Your task to perform on an android device: Open wifi settings Image 0: 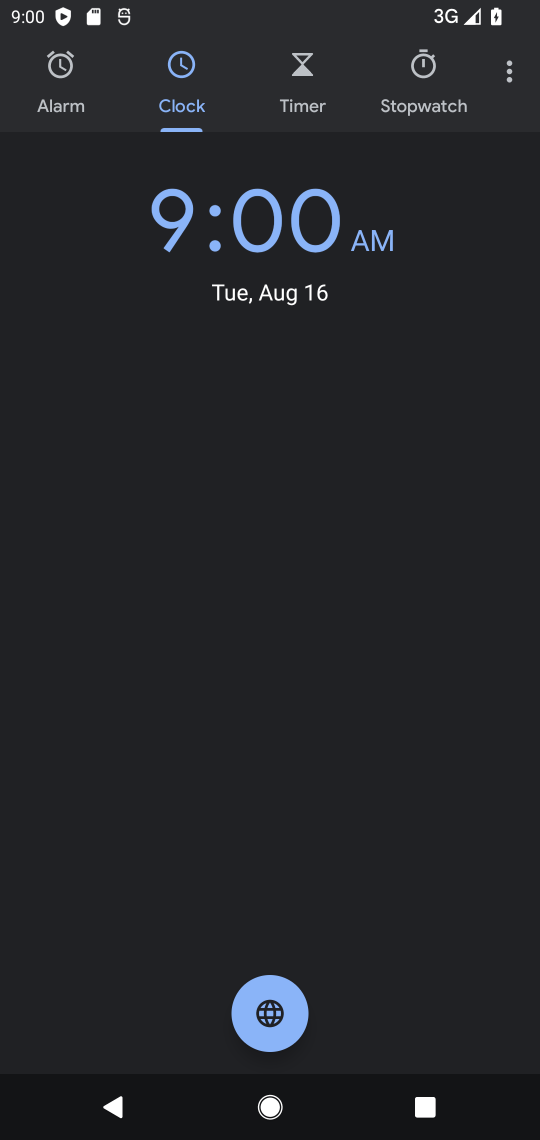
Step 0: press home button
Your task to perform on an android device: Open wifi settings Image 1: 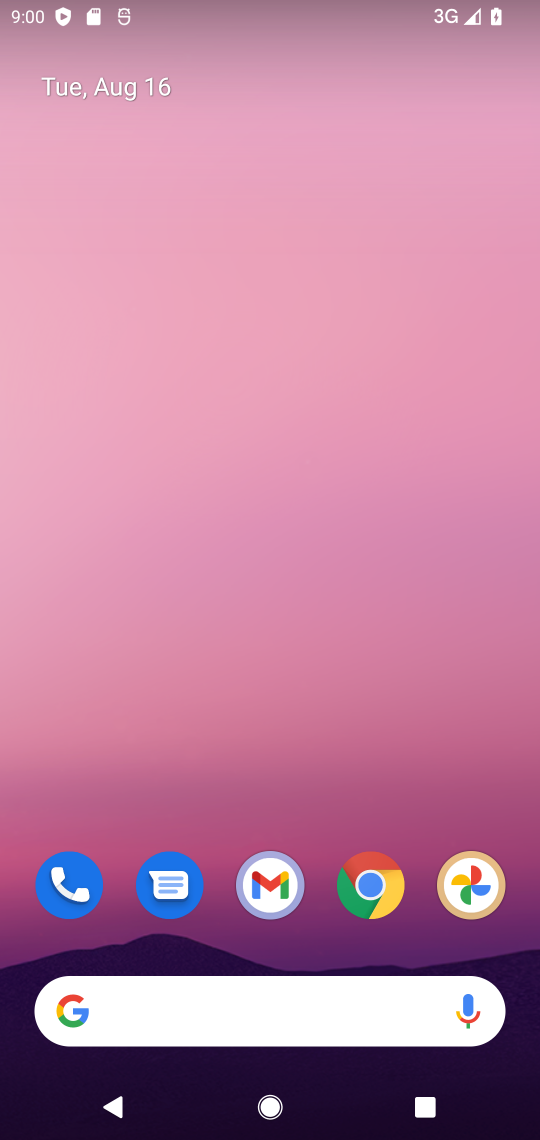
Step 1: drag from (368, 52) to (239, 100)
Your task to perform on an android device: Open wifi settings Image 2: 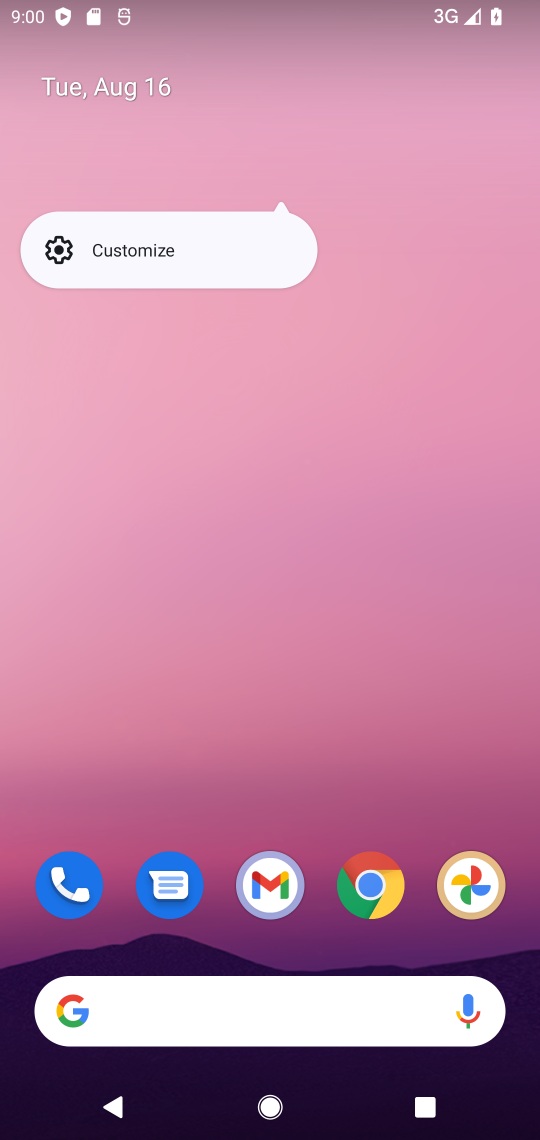
Step 2: drag from (292, 931) to (349, 85)
Your task to perform on an android device: Open wifi settings Image 3: 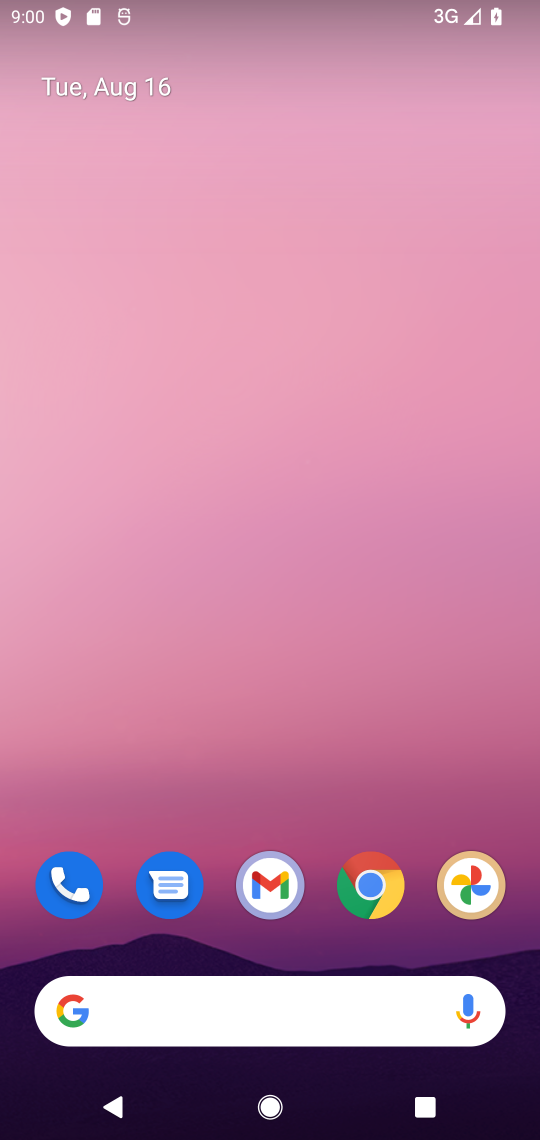
Step 3: drag from (253, 894) to (245, 207)
Your task to perform on an android device: Open wifi settings Image 4: 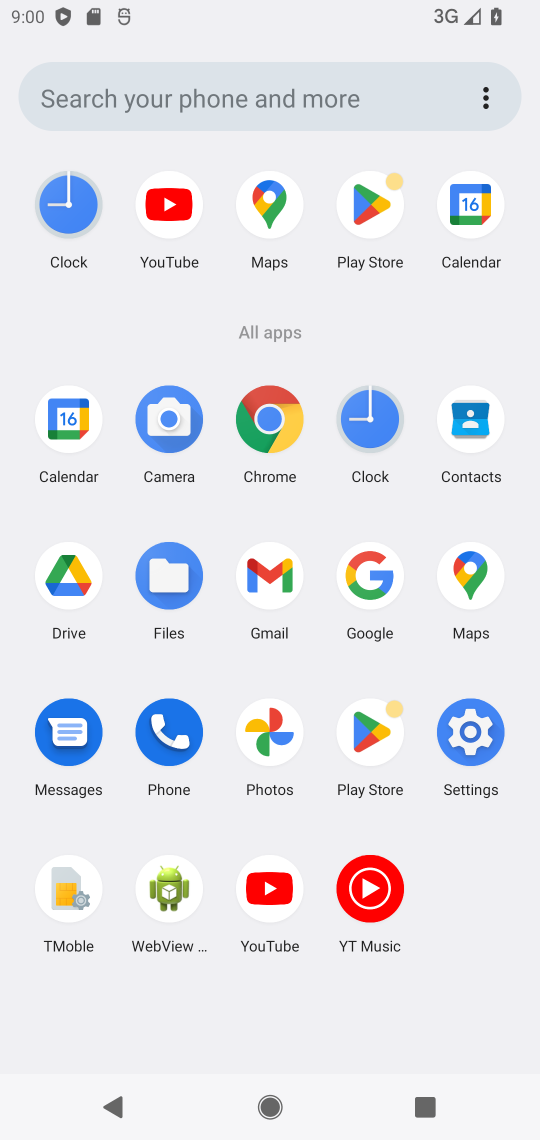
Step 4: click (463, 737)
Your task to perform on an android device: Open wifi settings Image 5: 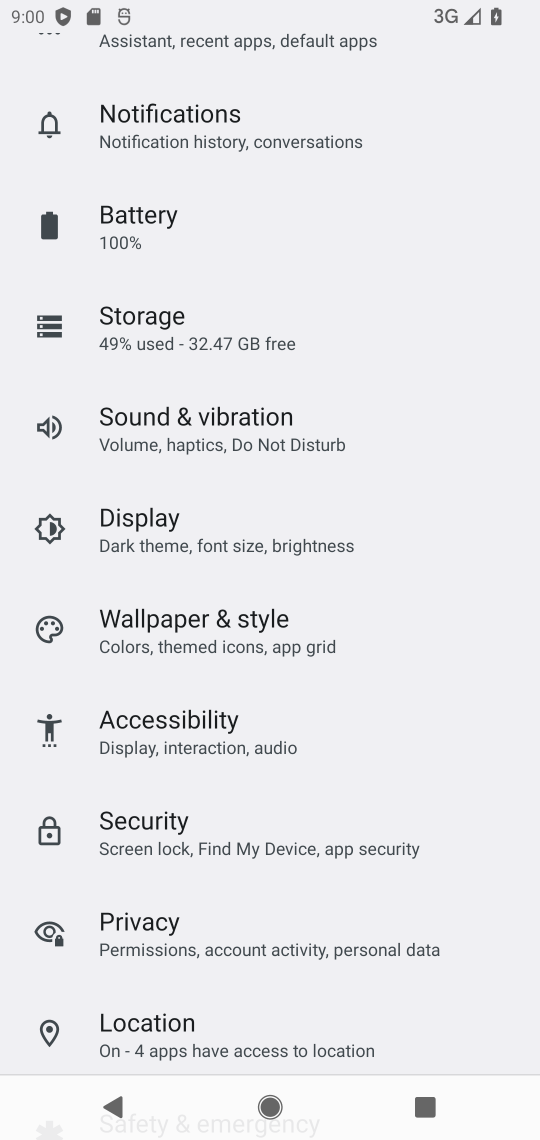
Step 5: drag from (211, 635) to (203, 690)
Your task to perform on an android device: Open wifi settings Image 6: 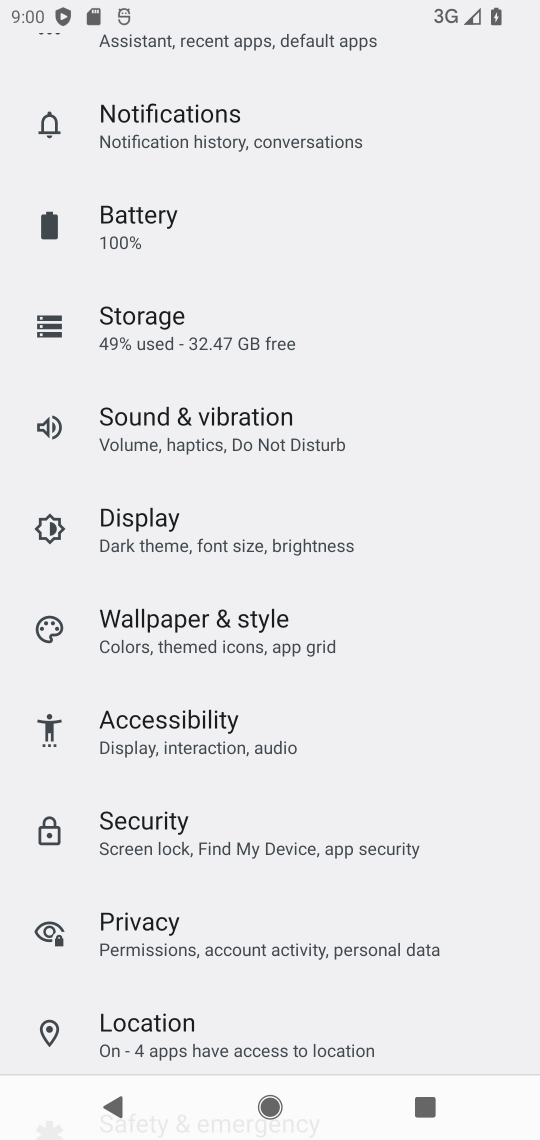
Step 6: drag from (316, 323) to (337, 683)
Your task to perform on an android device: Open wifi settings Image 7: 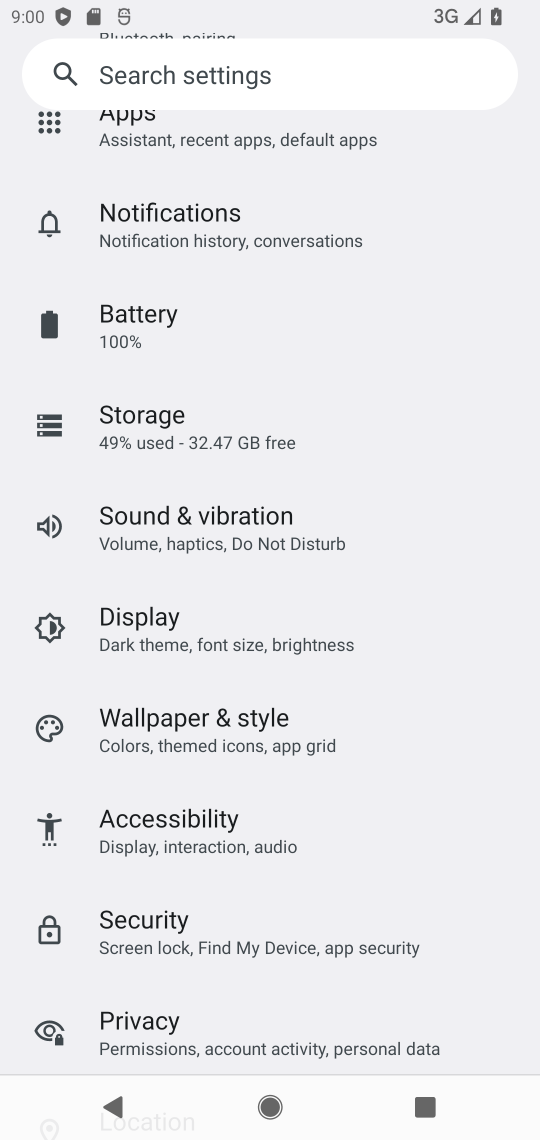
Step 7: drag from (209, 158) to (235, 645)
Your task to perform on an android device: Open wifi settings Image 8: 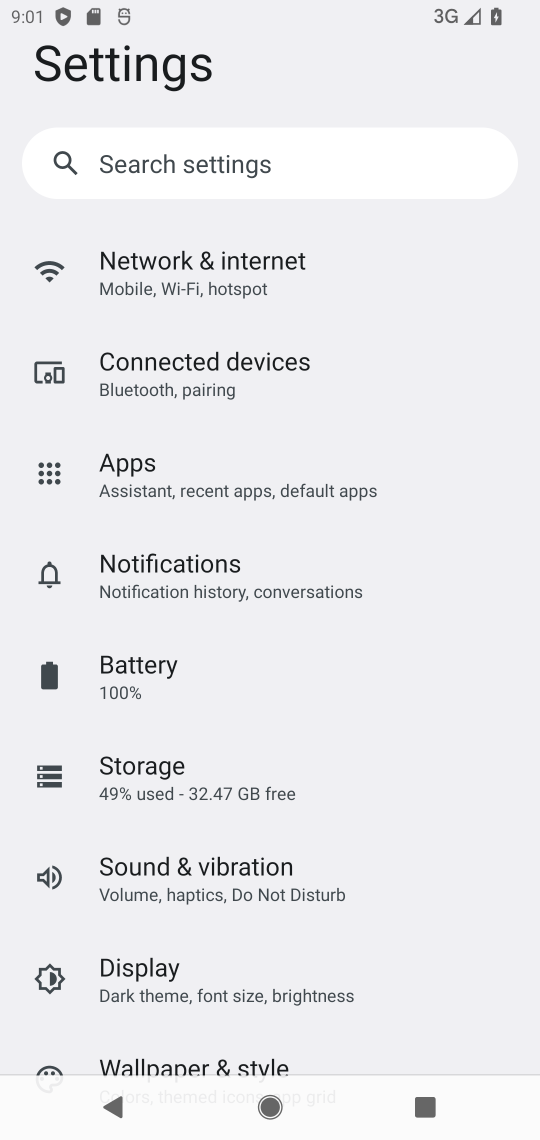
Step 8: click (144, 257)
Your task to perform on an android device: Open wifi settings Image 9: 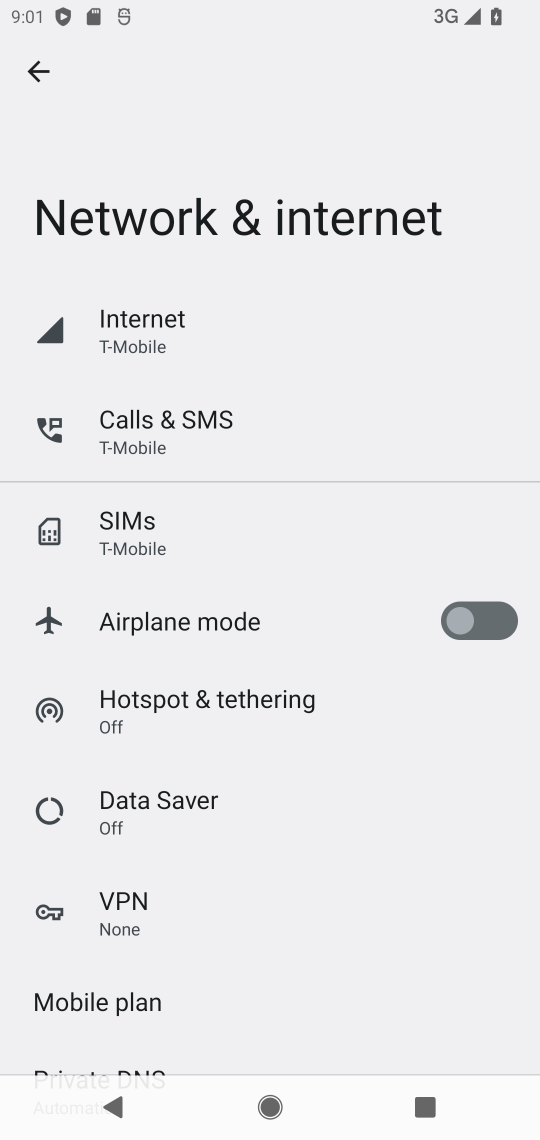
Step 9: click (149, 330)
Your task to perform on an android device: Open wifi settings Image 10: 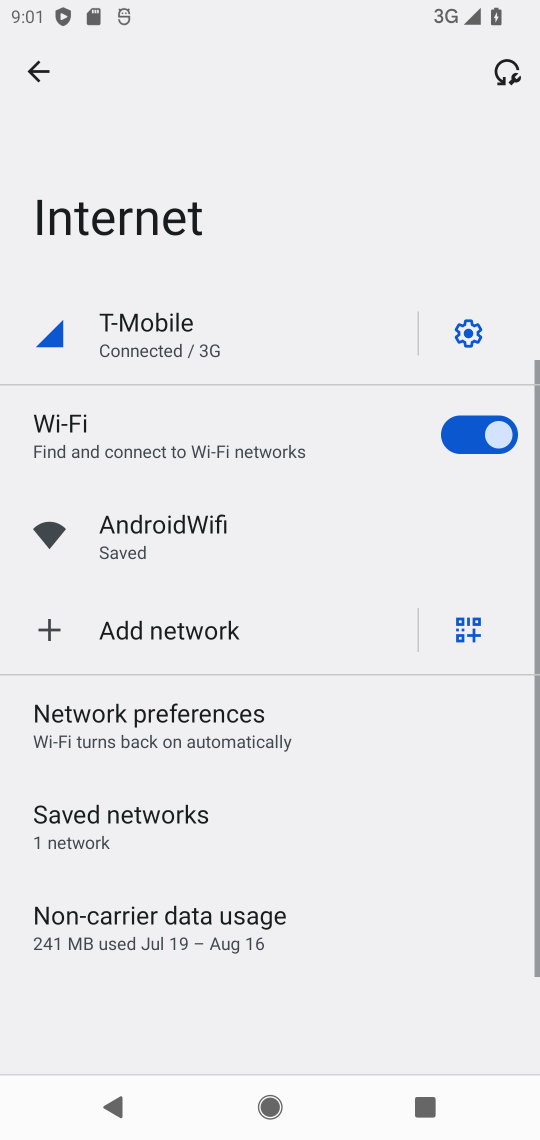
Step 10: click (225, 534)
Your task to perform on an android device: Open wifi settings Image 11: 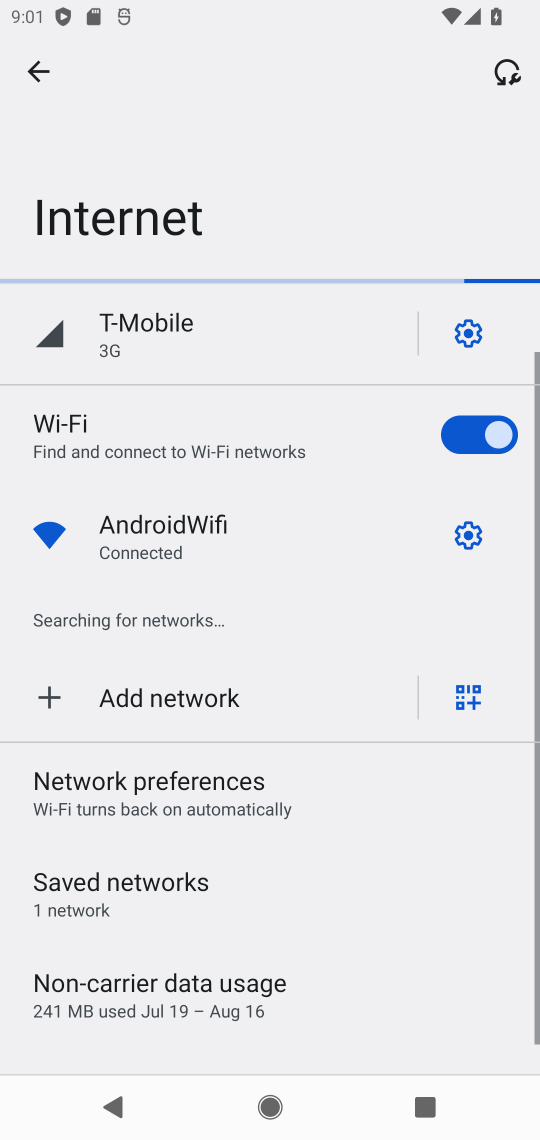
Step 11: click (123, 427)
Your task to perform on an android device: Open wifi settings Image 12: 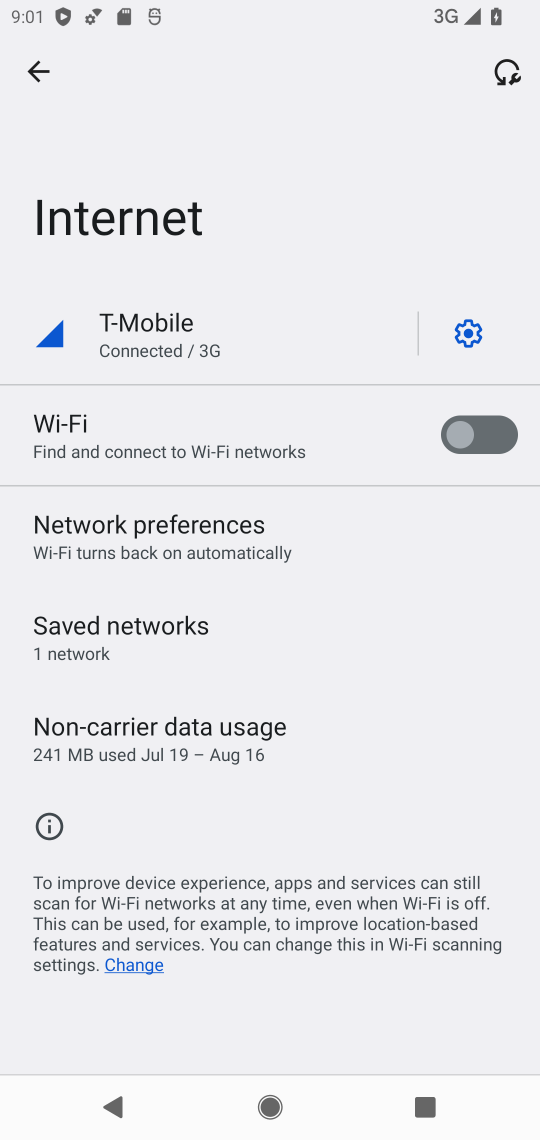
Step 12: task complete